Your task to perform on an android device: Open Chrome and go to the settings page Image 0: 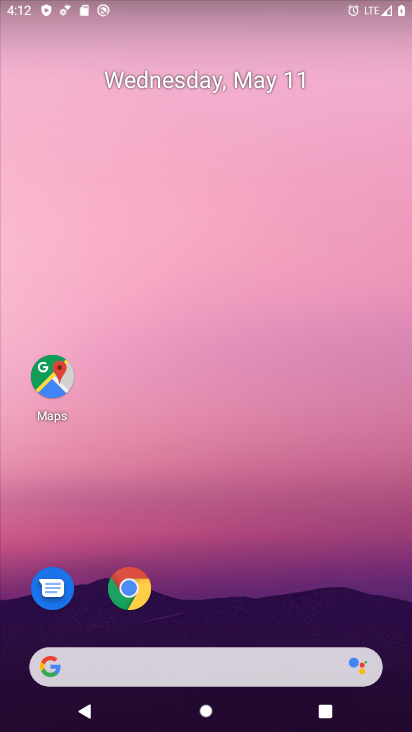
Step 0: drag from (256, 592) to (250, 175)
Your task to perform on an android device: Open Chrome and go to the settings page Image 1: 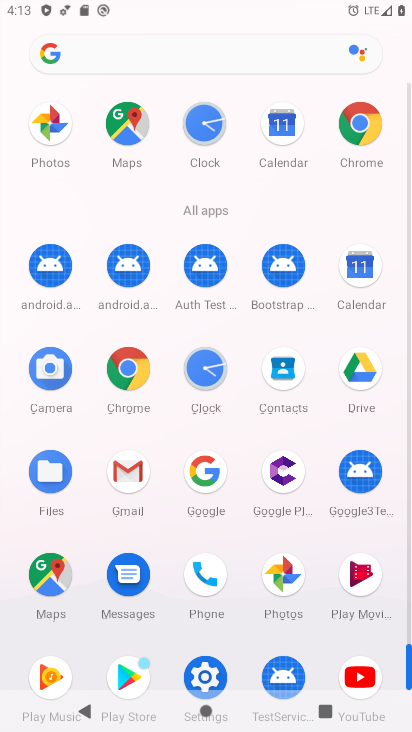
Step 1: click (342, 143)
Your task to perform on an android device: Open Chrome and go to the settings page Image 2: 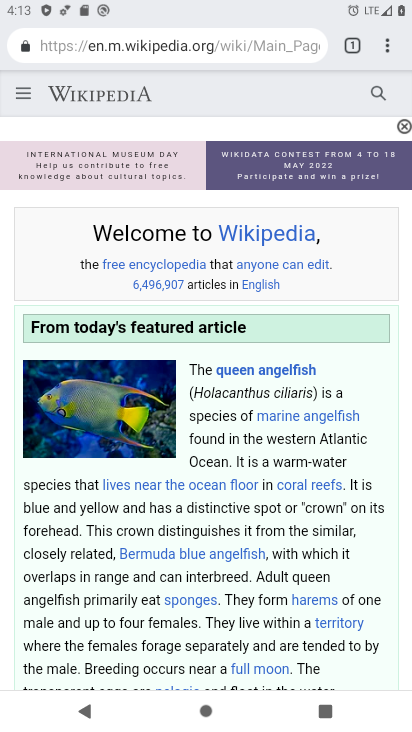
Step 2: task complete